Your task to perform on an android device: Open Google Chrome and click the shortcut for Amazon.com Image 0: 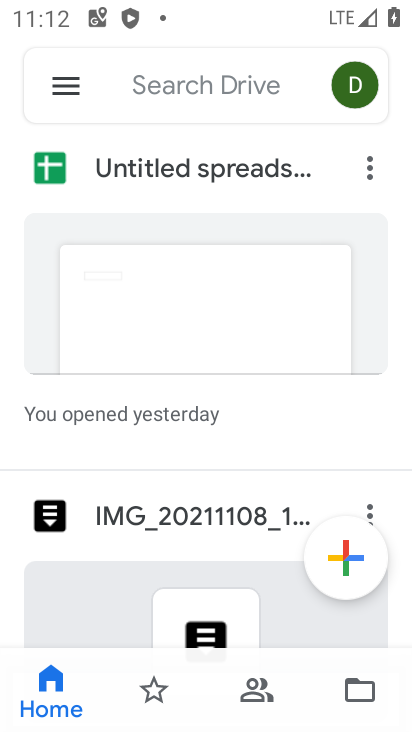
Step 0: press home button
Your task to perform on an android device: Open Google Chrome and click the shortcut for Amazon.com Image 1: 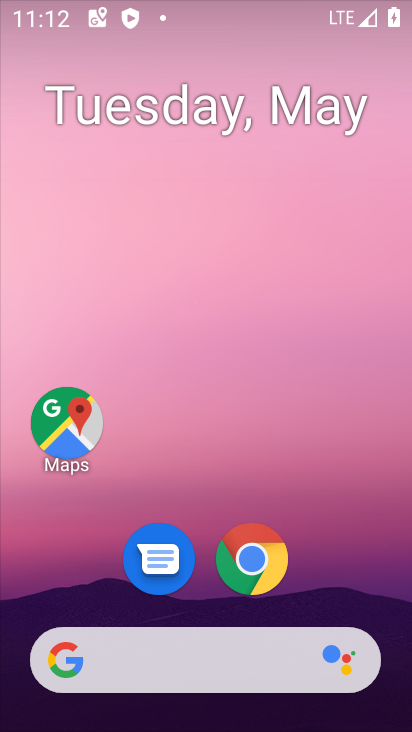
Step 1: drag from (358, 590) to (311, 165)
Your task to perform on an android device: Open Google Chrome and click the shortcut for Amazon.com Image 2: 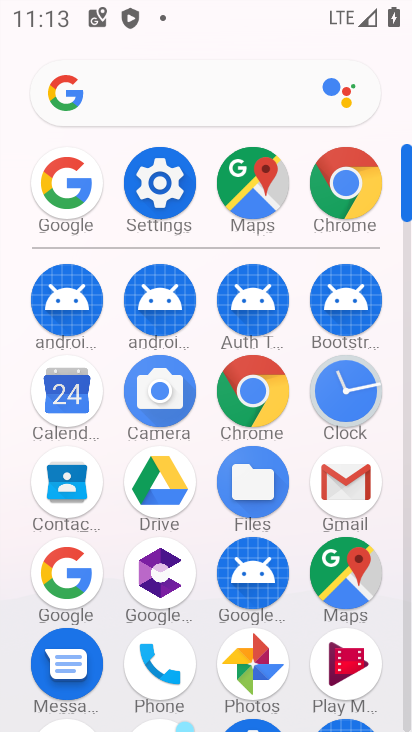
Step 2: click (254, 371)
Your task to perform on an android device: Open Google Chrome and click the shortcut for Amazon.com Image 3: 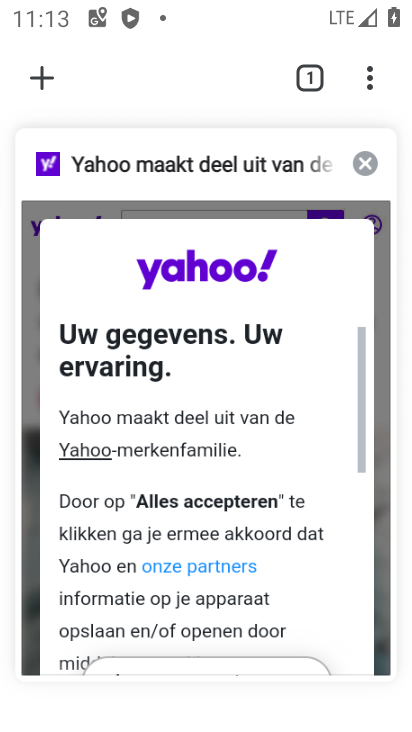
Step 3: click (50, 87)
Your task to perform on an android device: Open Google Chrome and click the shortcut for Amazon.com Image 4: 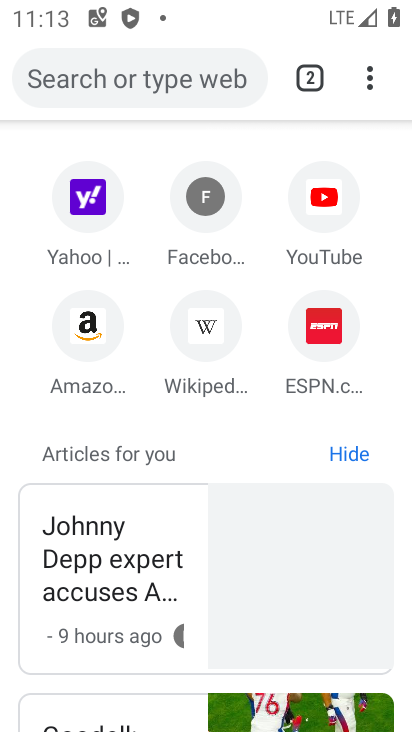
Step 4: click (92, 334)
Your task to perform on an android device: Open Google Chrome and click the shortcut for Amazon.com Image 5: 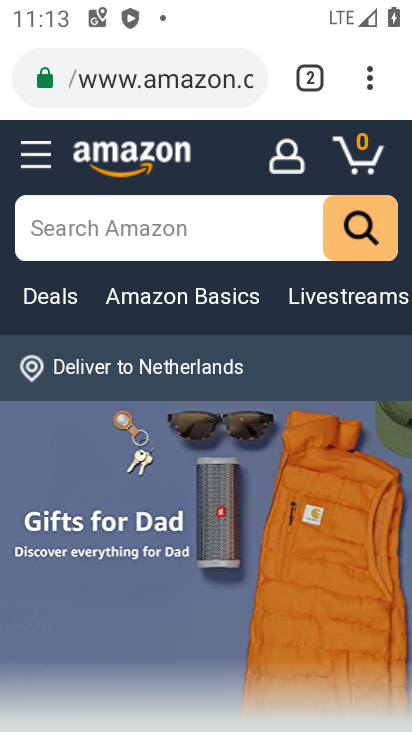
Step 5: task complete